Your task to perform on an android device: Open Reddit.com Image 0: 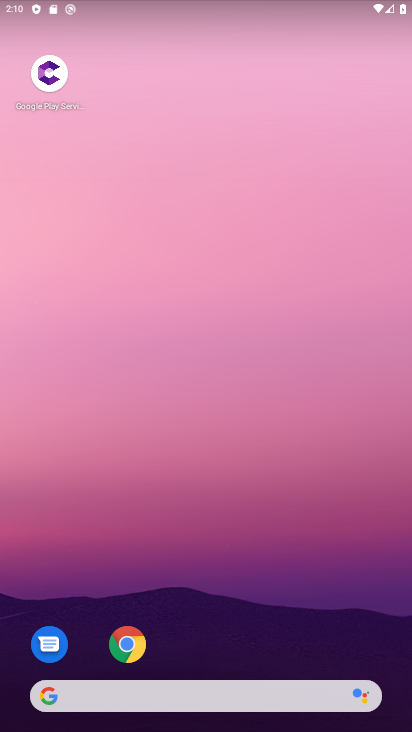
Step 0: click (123, 652)
Your task to perform on an android device: Open Reddit.com Image 1: 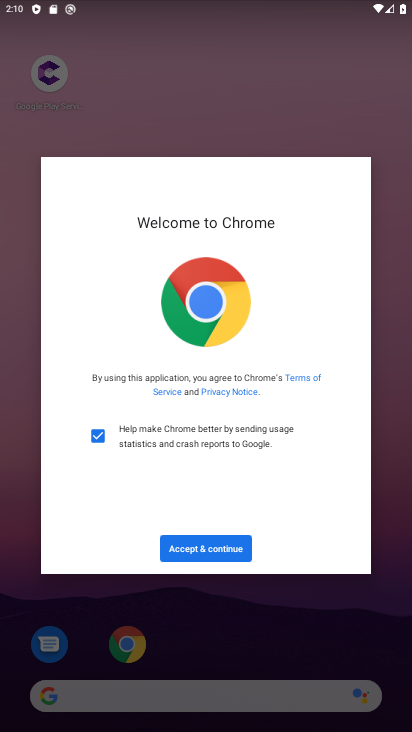
Step 1: click (206, 554)
Your task to perform on an android device: Open Reddit.com Image 2: 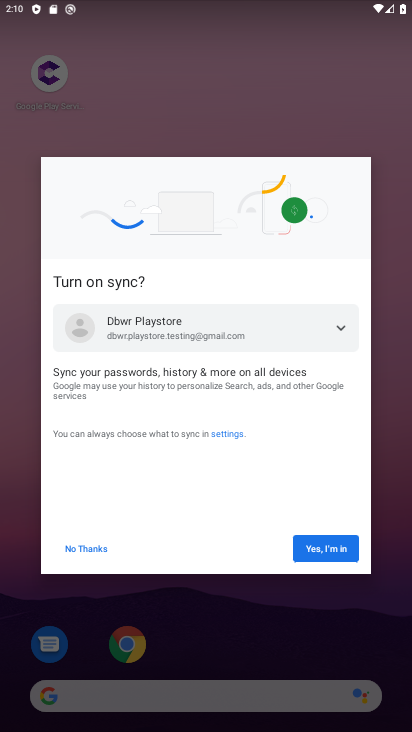
Step 2: click (312, 548)
Your task to perform on an android device: Open Reddit.com Image 3: 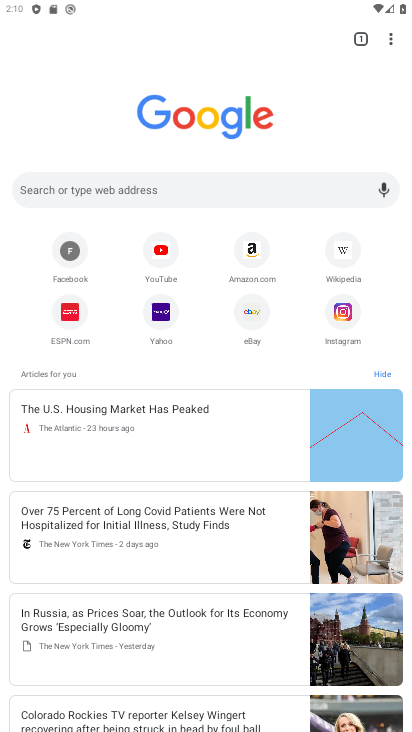
Step 3: click (280, 182)
Your task to perform on an android device: Open Reddit.com Image 4: 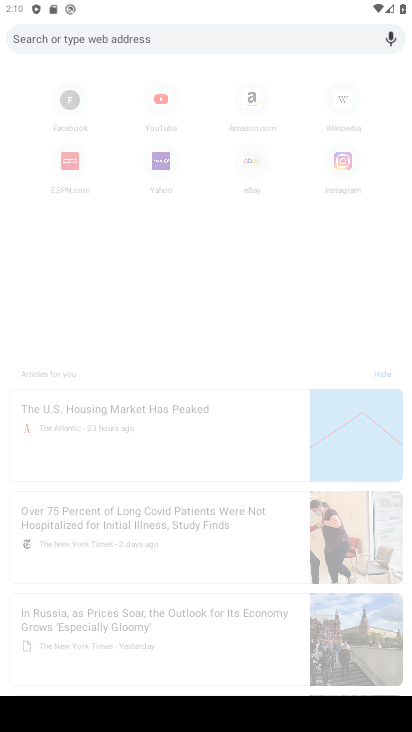
Step 4: type "reddit.com"
Your task to perform on an android device: Open Reddit.com Image 5: 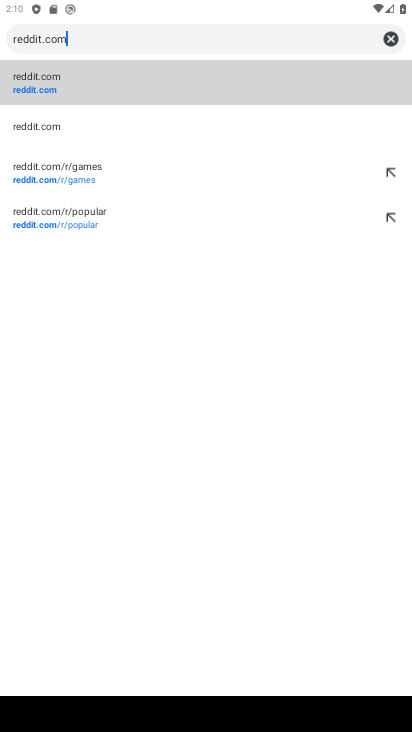
Step 5: click (114, 67)
Your task to perform on an android device: Open Reddit.com Image 6: 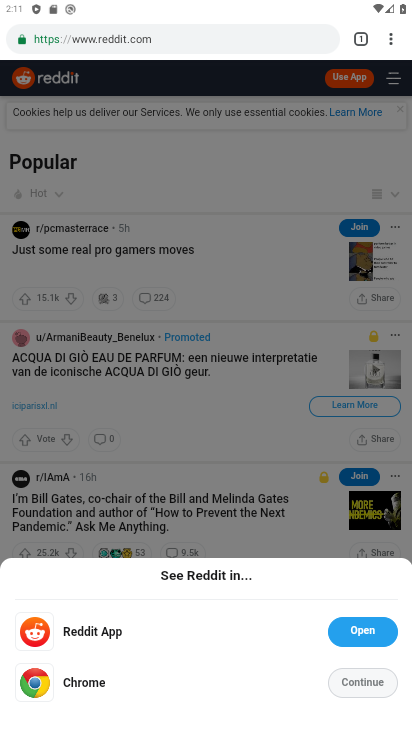
Step 6: task complete